Your task to perform on an android device: Open accessibility settings Image 0: 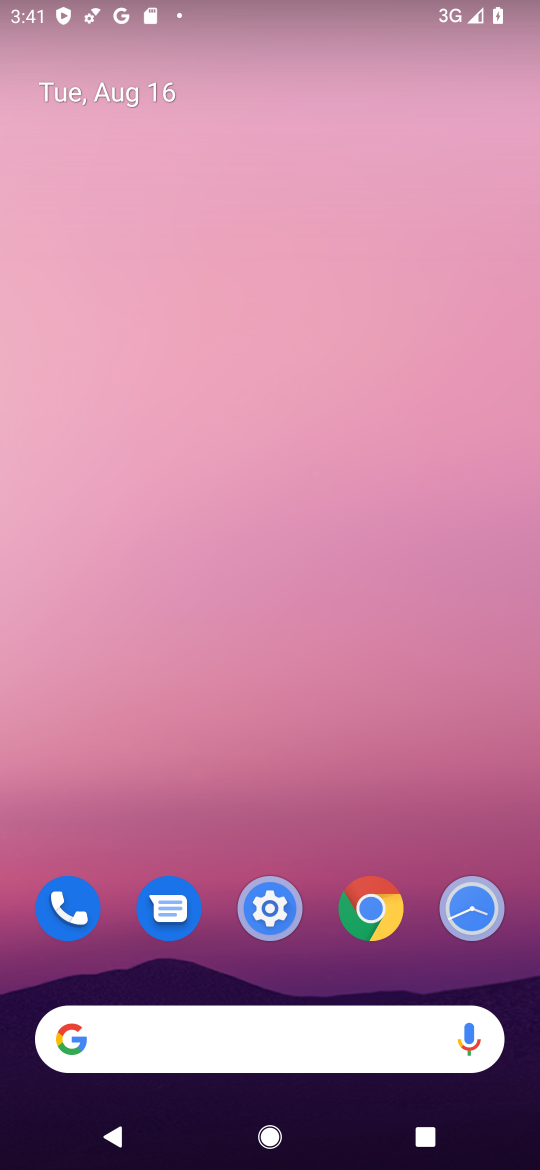
Step 0: click (278, 911)
Your task to perform on an android device: Open accessibility settings Image 1: 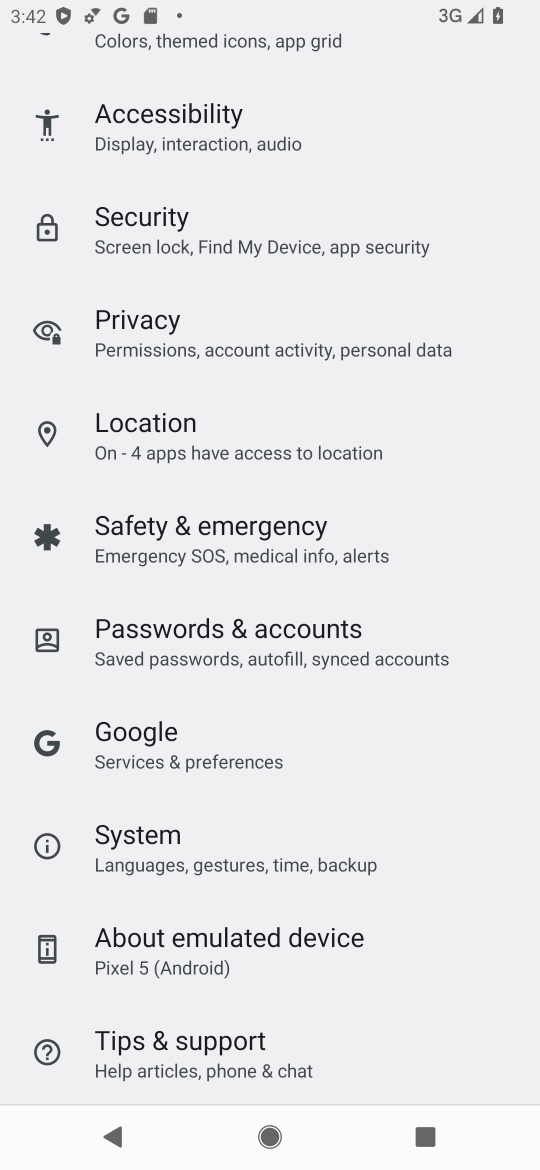
Step 1: click (345, 133)
Your task to perform on an android device: Open accessibility settings Image 2: 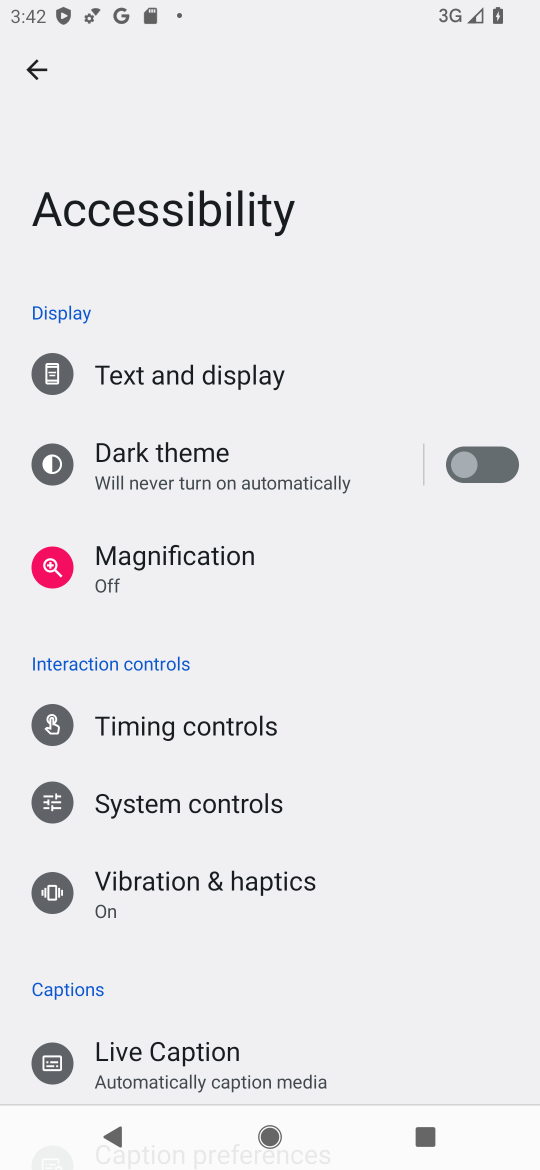
Step 2: task complete